Your task to perform on an android device: What's on my calendar tomorrow? Image 0: 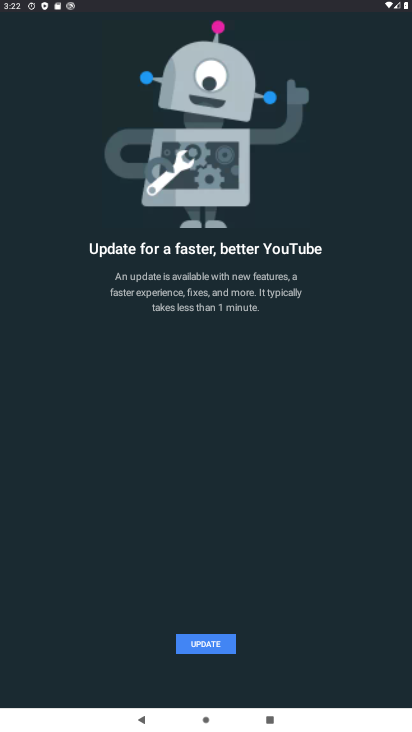
Step 0: press home button
Your task to perform on an android device: What's on my calendar tomorrow? Image 1: 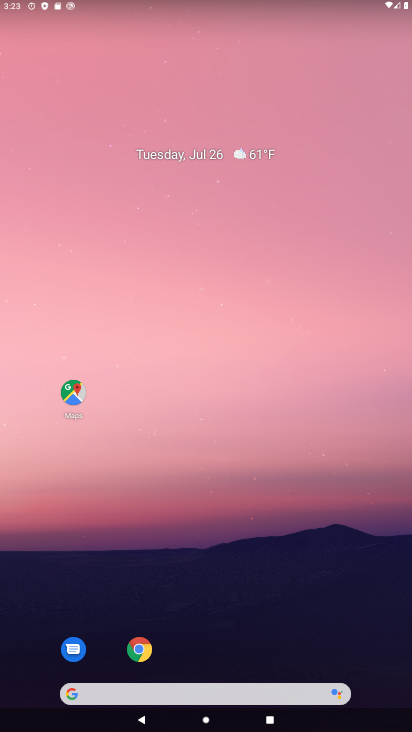
Step 1: drag from (87, 468) to (156, 242)
Your task to perform on an android device: What's on my calendar tomorrow? Image 2: 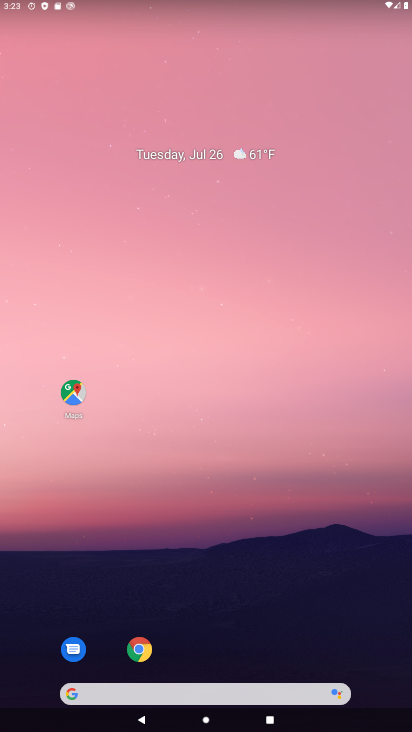
Step 2: drag from (9, 705) to (234, 0)
Your task to perform on an android device: What's on my calendar tomorrow? Image 3: 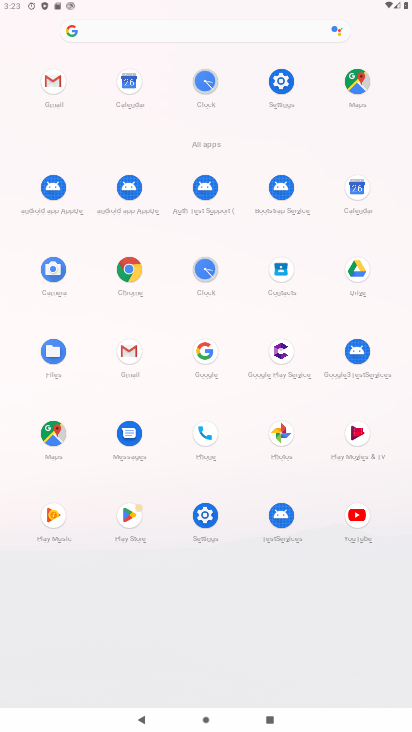
Step 3: click (340, 192)
Your task to perform on an android device: What's on my calendar tomorrow? Image 4: 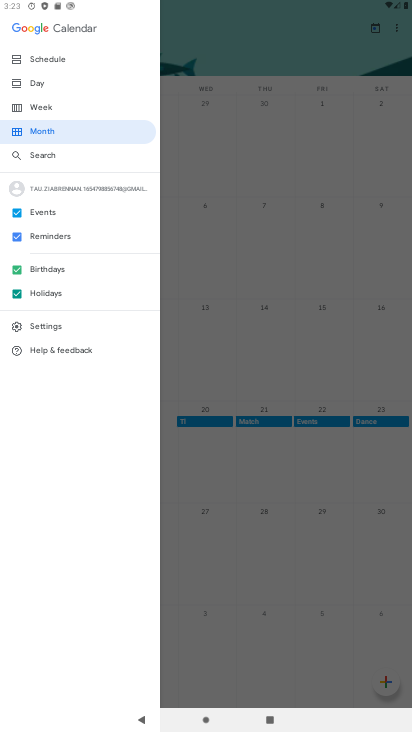
Step 4: click (280, 42)
Your task to perform on an android device: What's on my calendar tomorrow? Image 5: 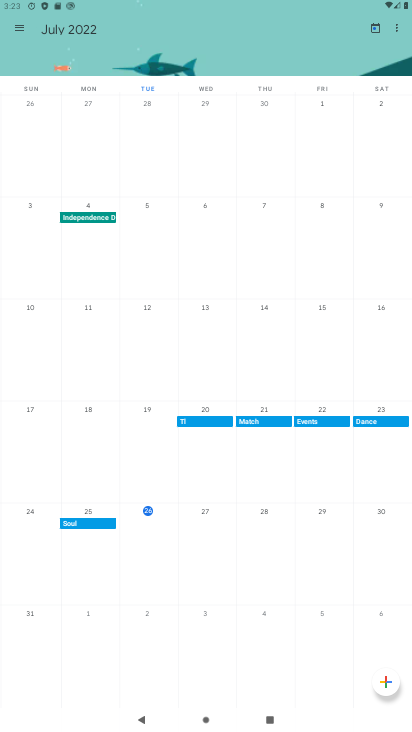
Step 5: task complete